Your task to perform on an android device: open app "Move to iOS" Image 0: 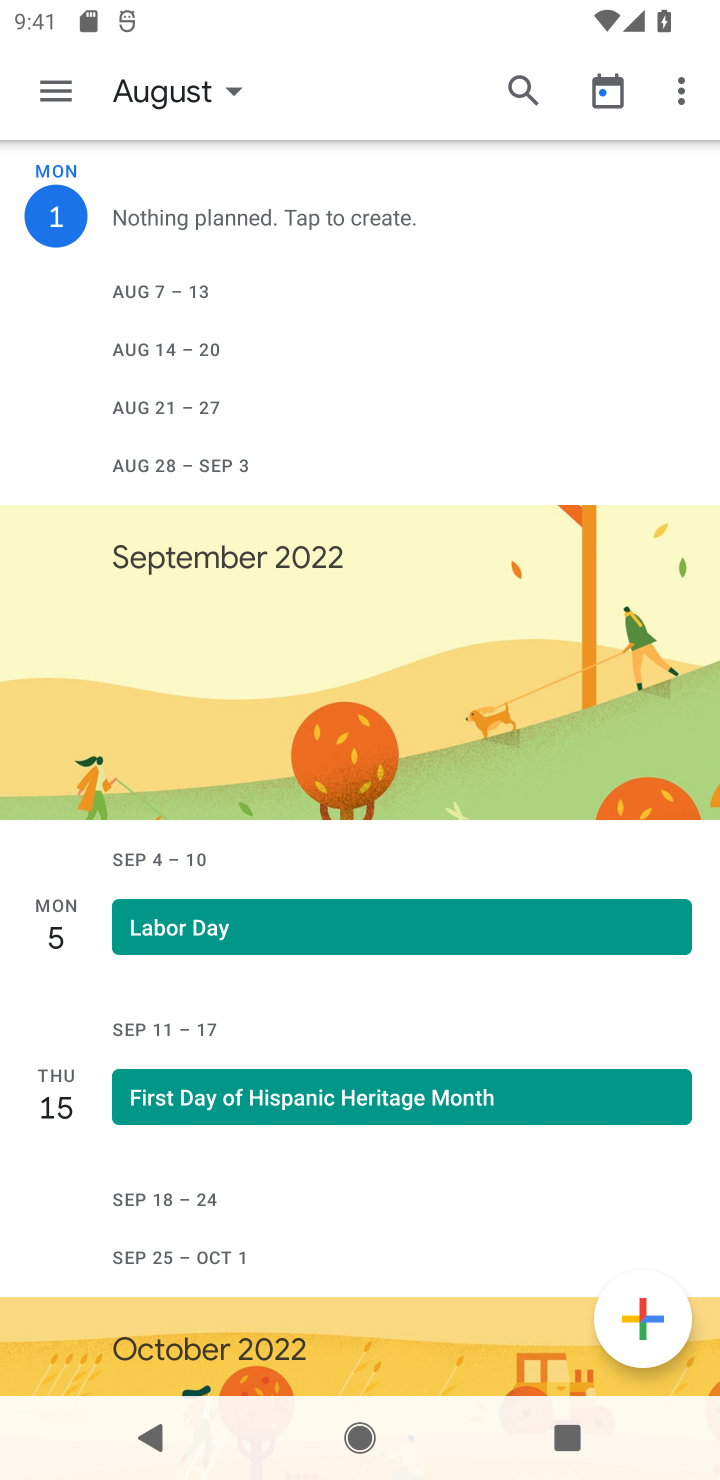
Step 0: press home button
Your task to perform on an android device: open app "Move to iOS" Image 1: 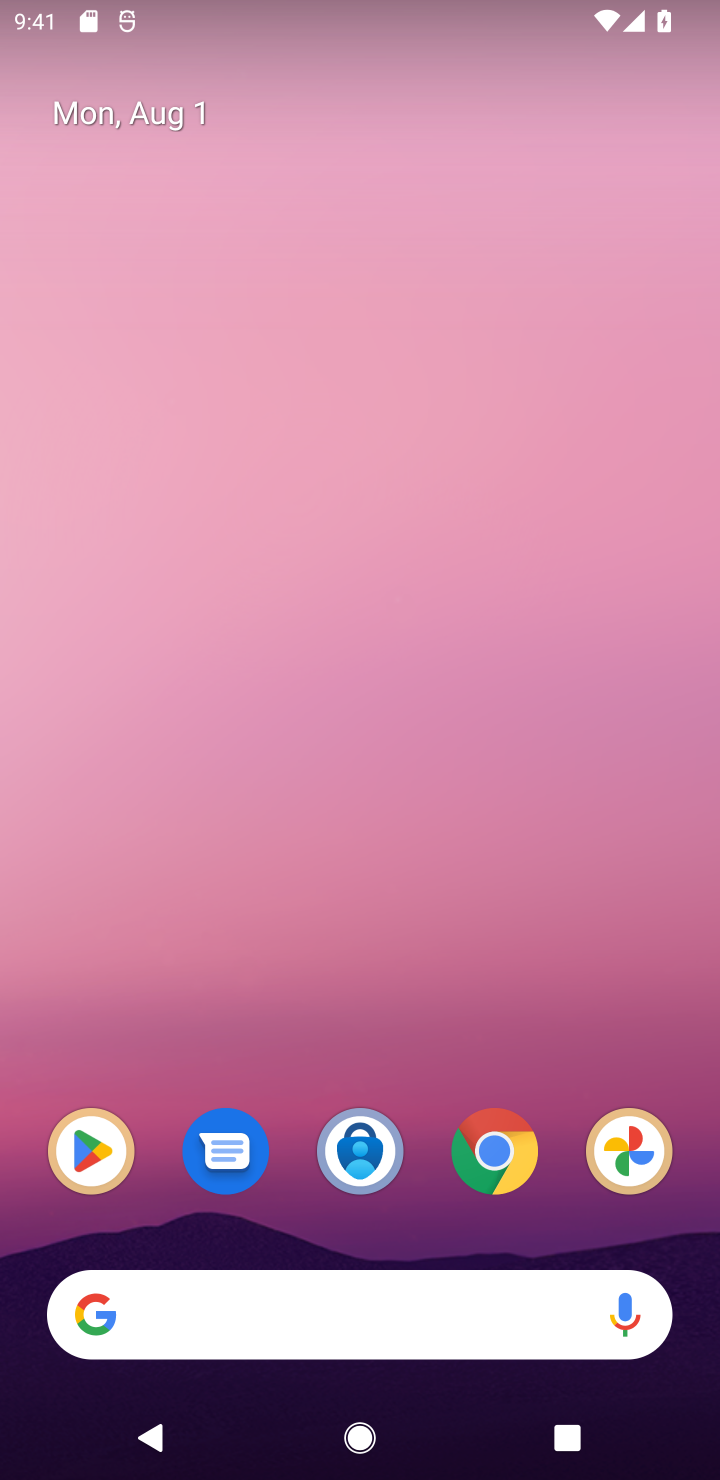
Step 1: click (194, 518)
Your task to perform on an android device: open app "Move to iOS" Image 2: 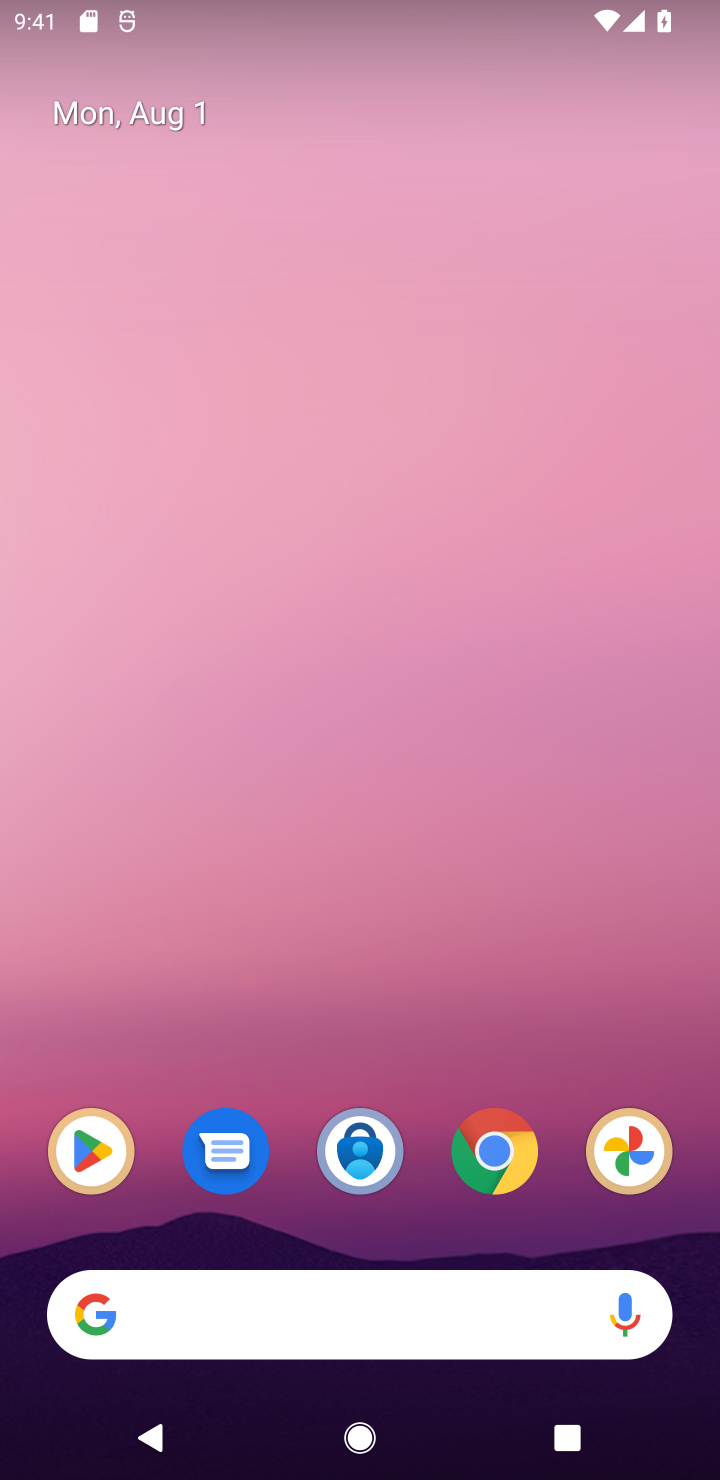
Step 2: drag from (374, 1270) to (594, 179)
Your task to perform on an android device: open app "Move to iOS" Image 3: 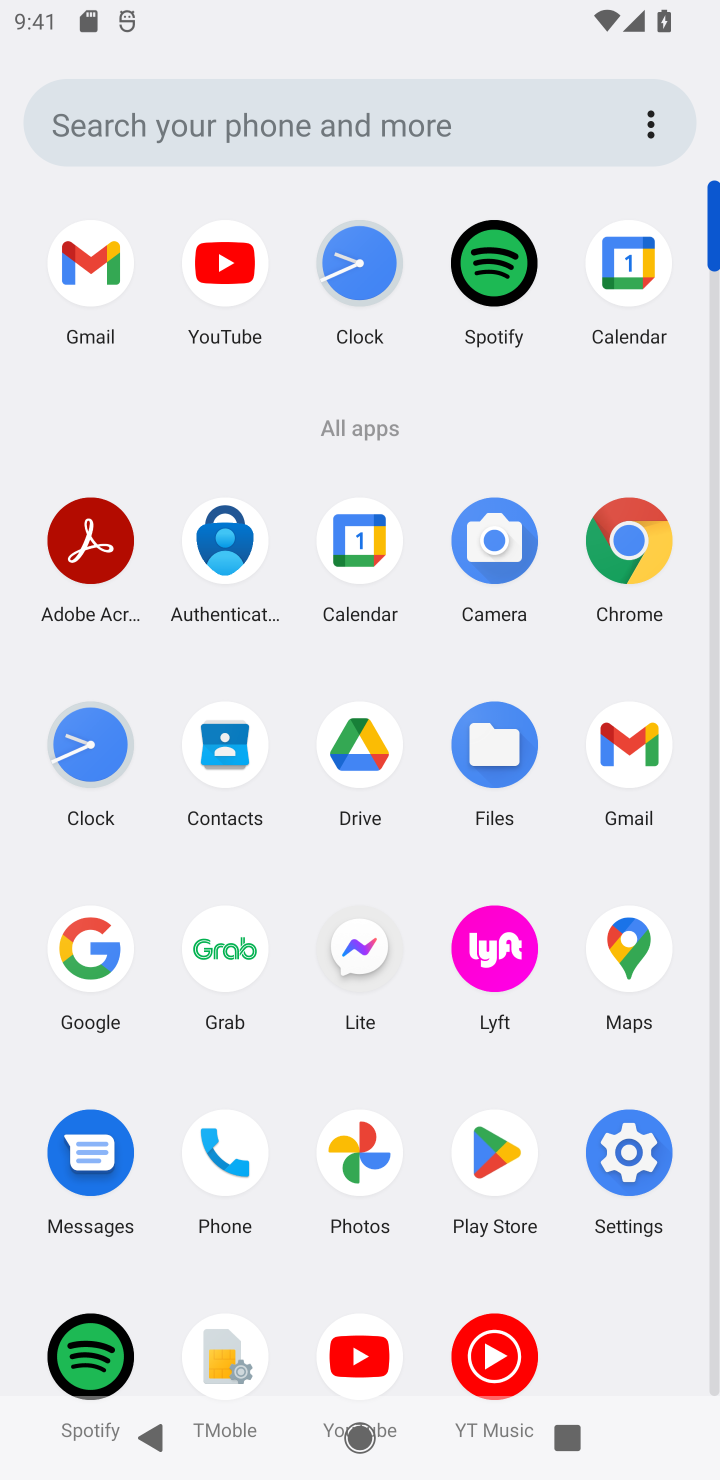
Step 3: click (464, 1153)
Your task to perform on an android device: open app "Move to iOS" Image 4: 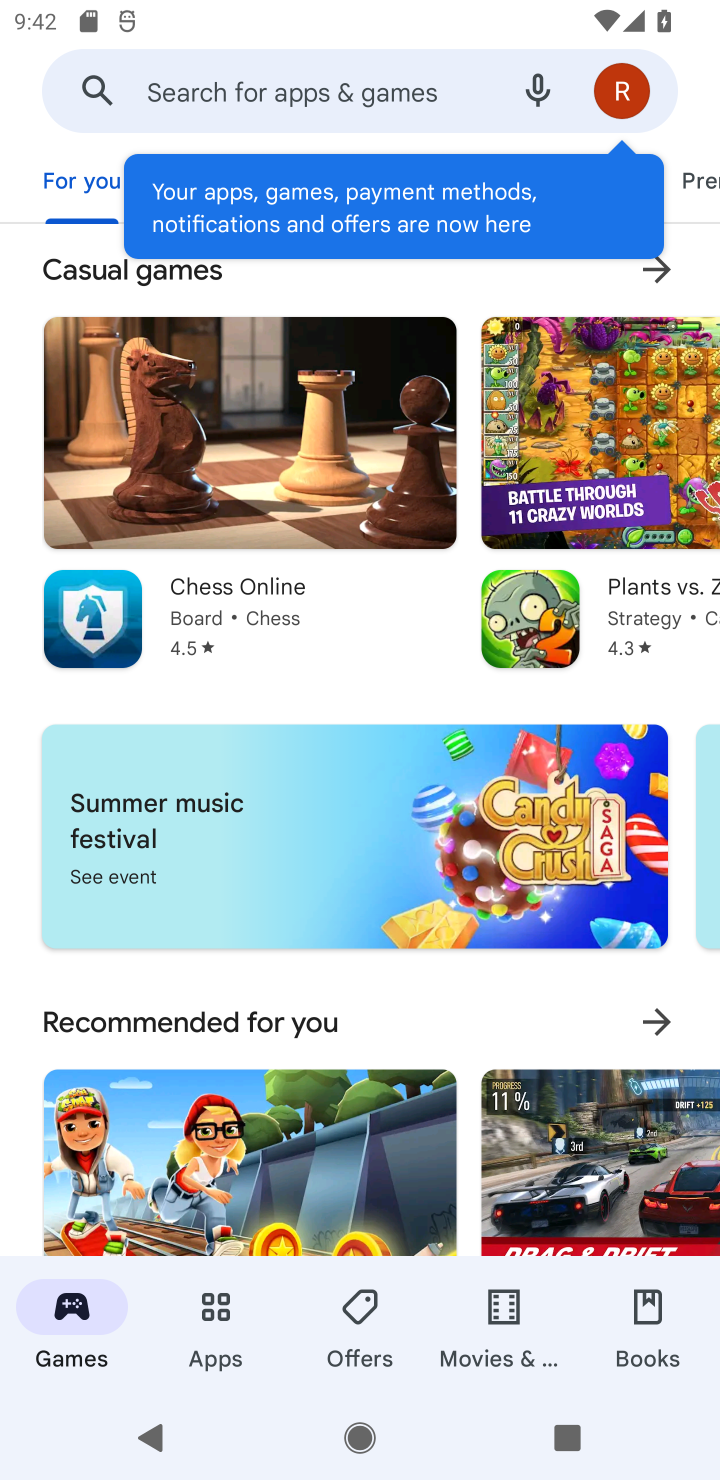
Step 4: click (381, 86)
Your task to perform on an android device: open app "Move to iOS" Image 5: 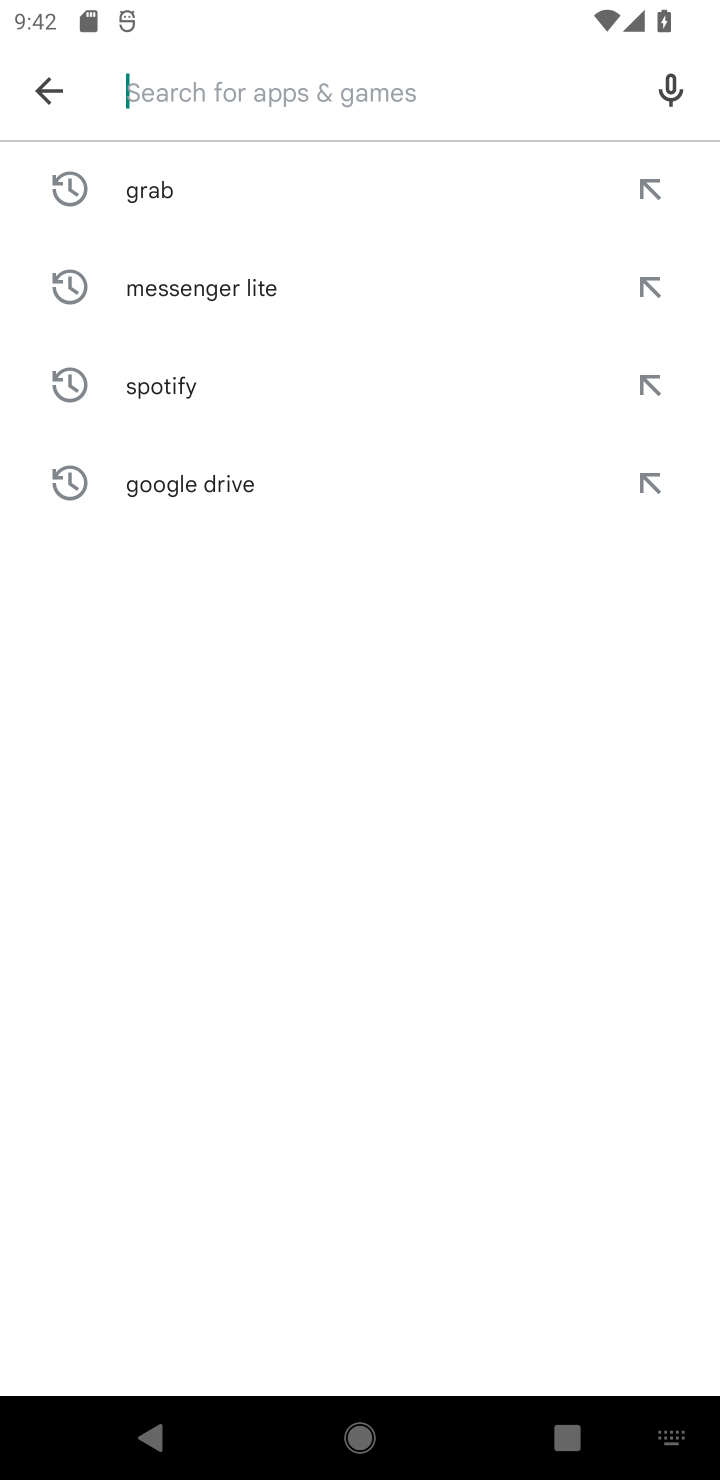
Step 5: type "Move to iOS"
Your task to perform on an android device: open app "Move to iOS" Image 6: 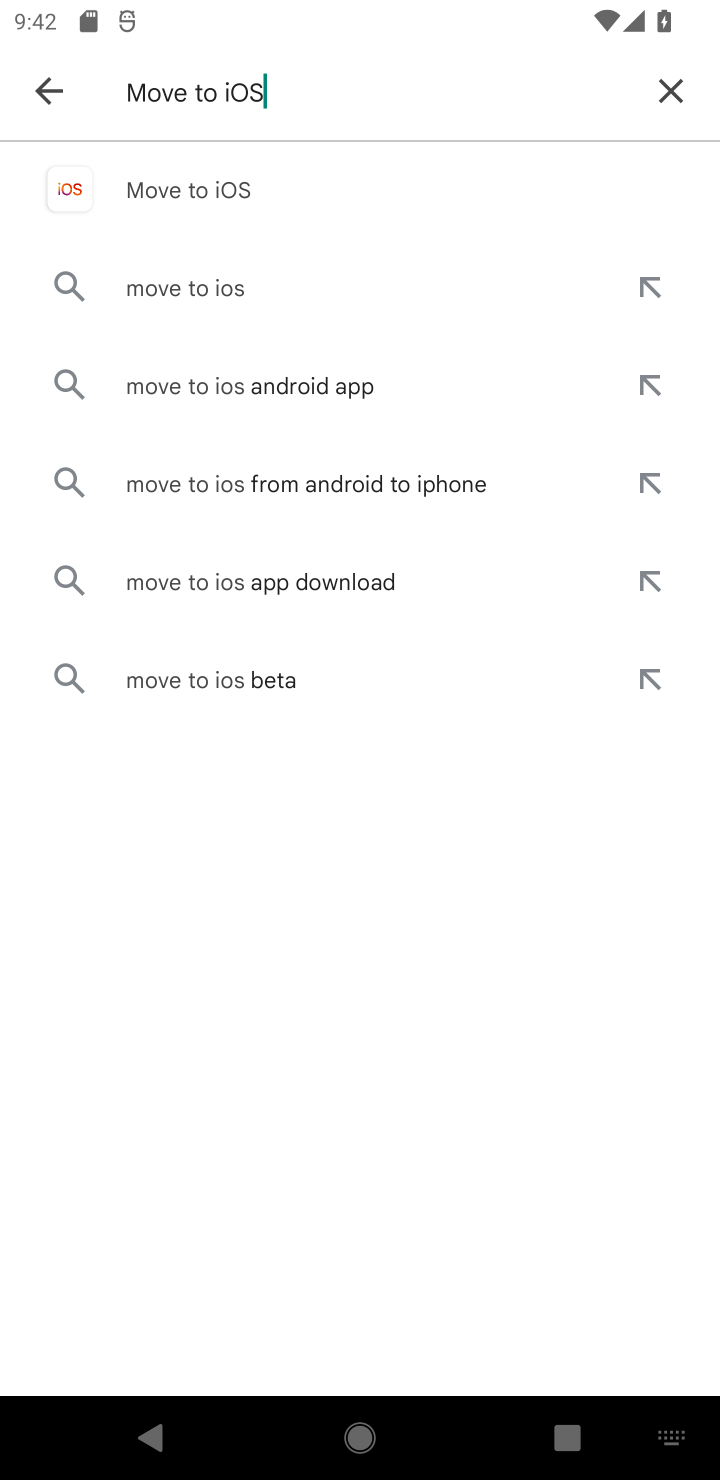
Step 6: click (250, 203)
Your task to perform on an android device: open app "Move to iOS" Image 7: 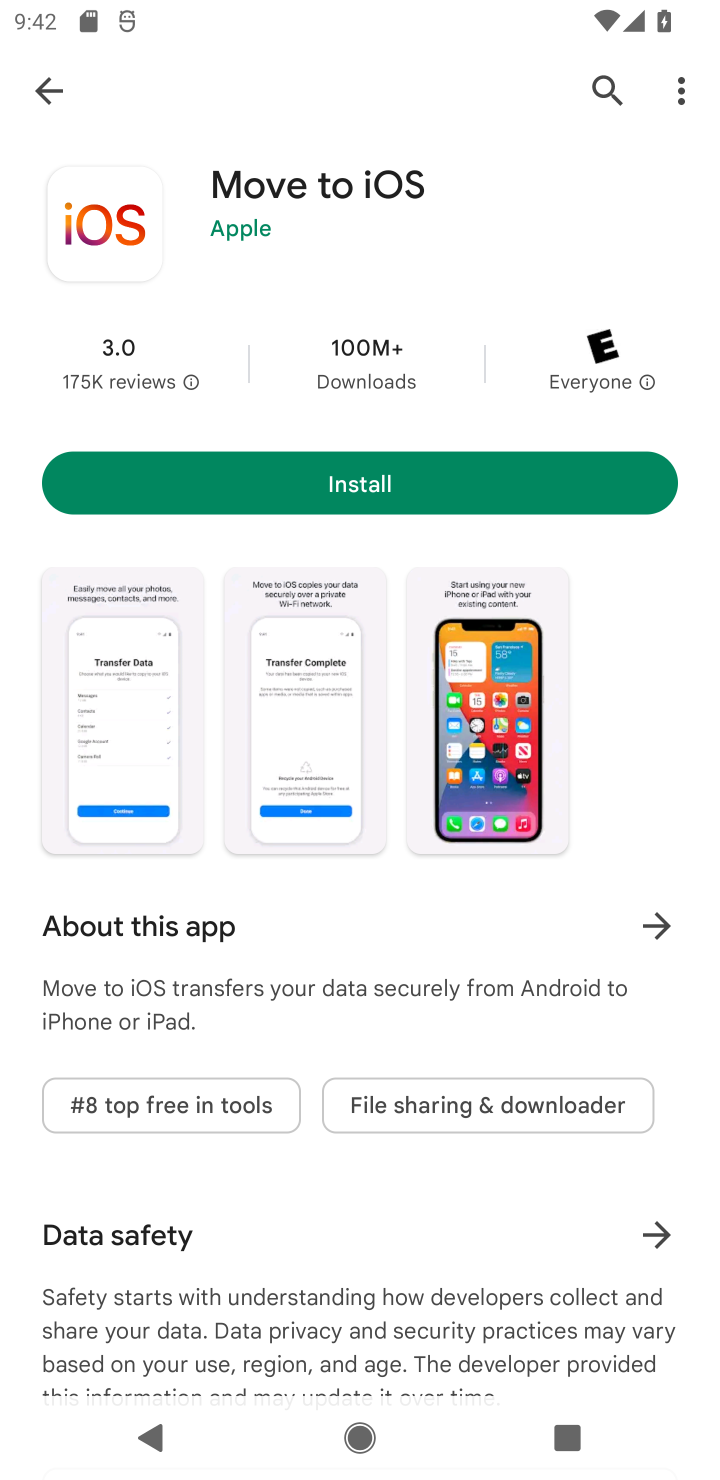
Step 7: click (317, 491)
Your task to perform on an android device: open app "Move to iOS" Image 8: 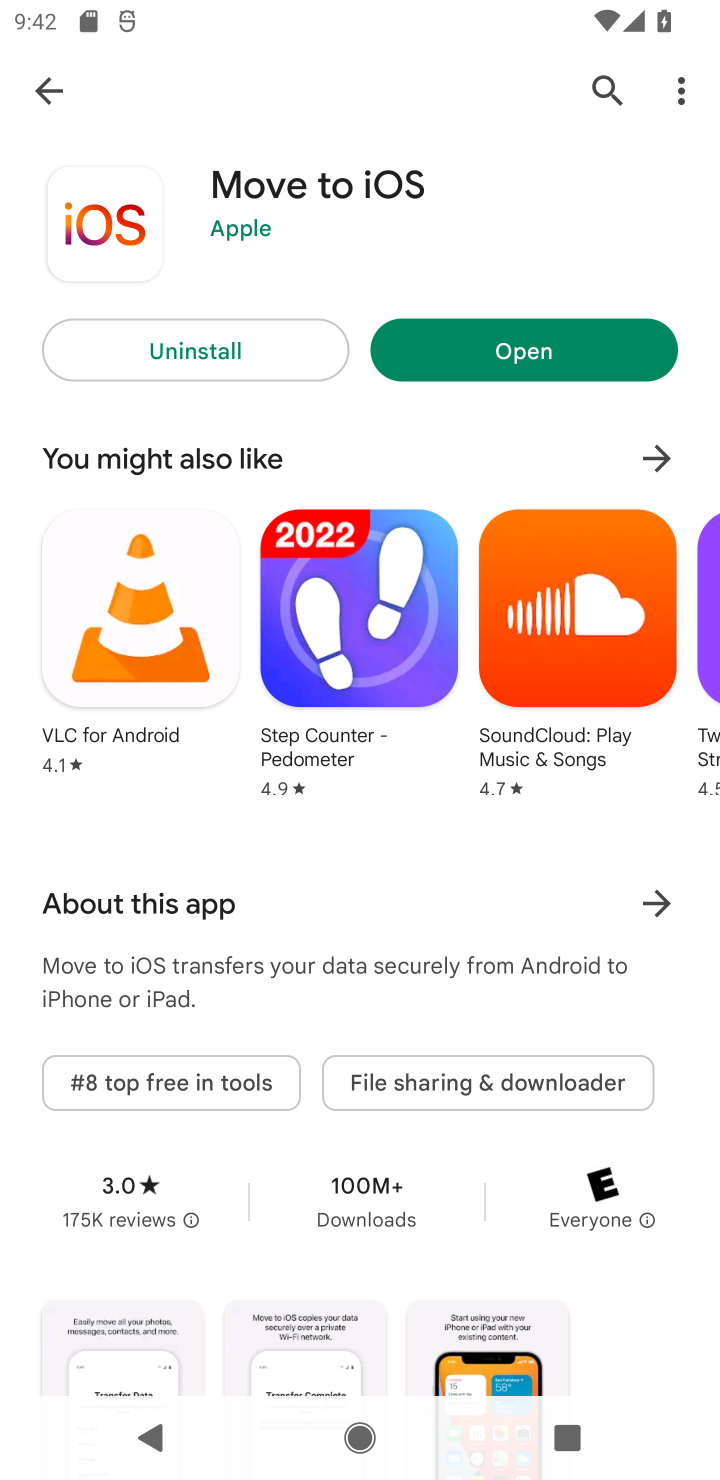
Step 8: click (500, 355)
Your task to perform on an android device: open app "Move to iOS" Image 9: 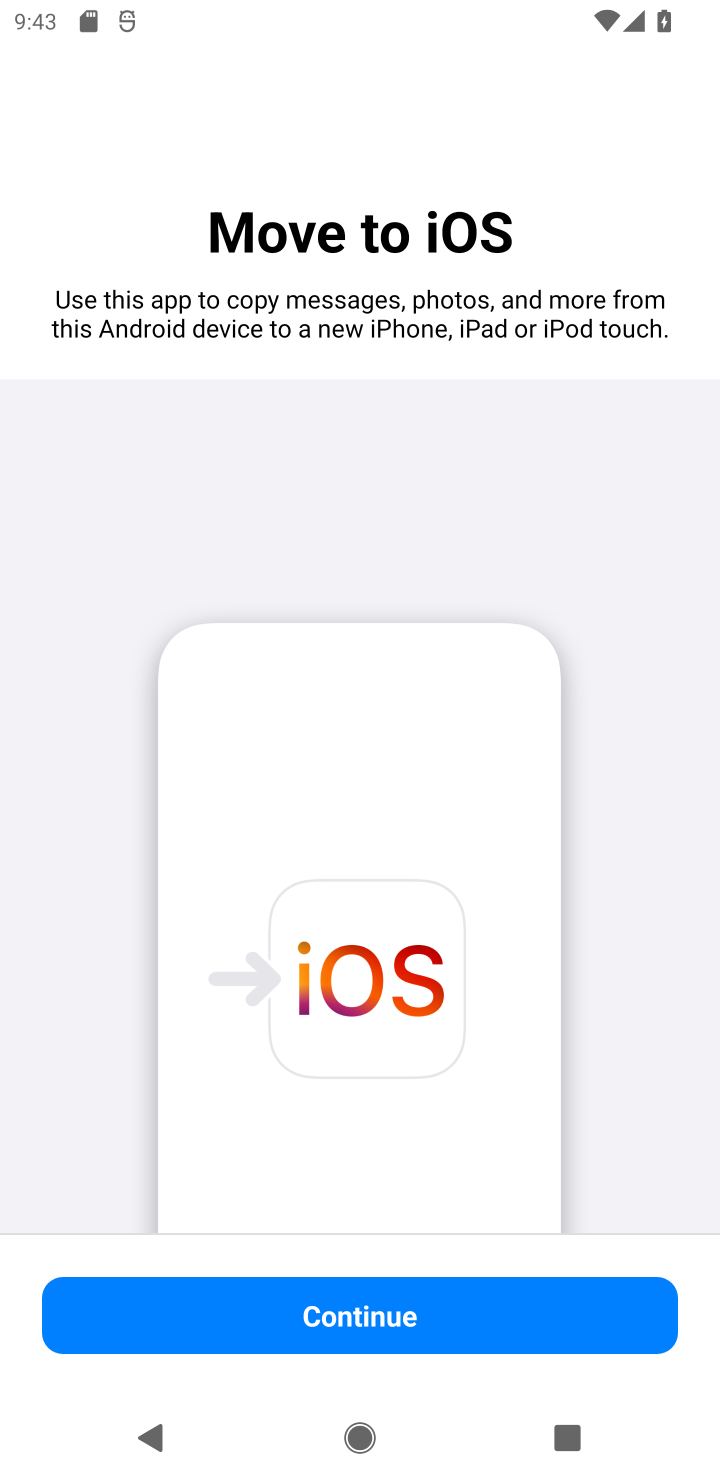
Step 9: task complete